Your task to perform on an android device: Go to sound settings Image 0: 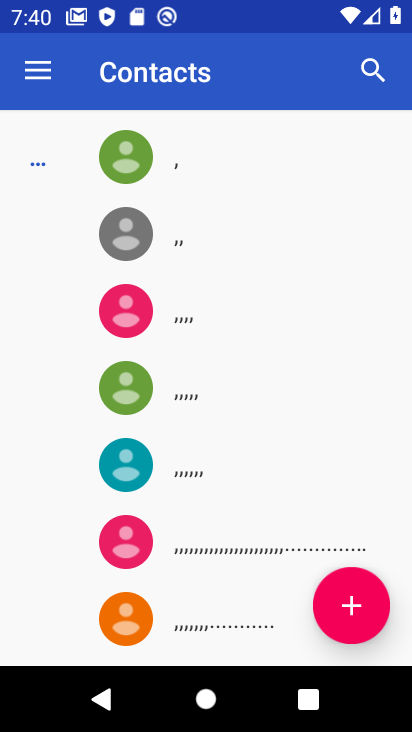
Step 0: press home button
Your task to perform on an android device: Go to sound settings Image 1: 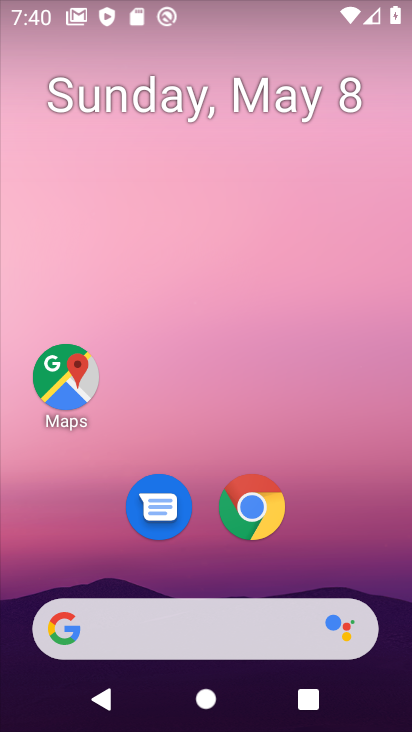
Step 1: drag from (158, 698) to (223, 60)
Your task to perform on an android device: Go to sound settings Image 2: 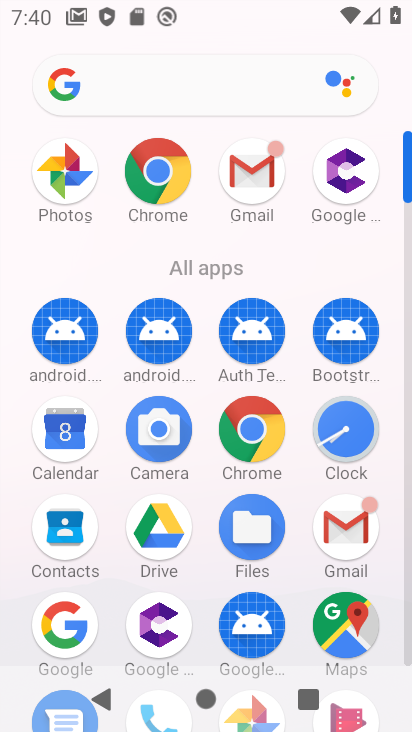
Step 2: drag from (298, 647) to (309, 124)
Your task to perform on an android device: Go to sound settings Image 3: 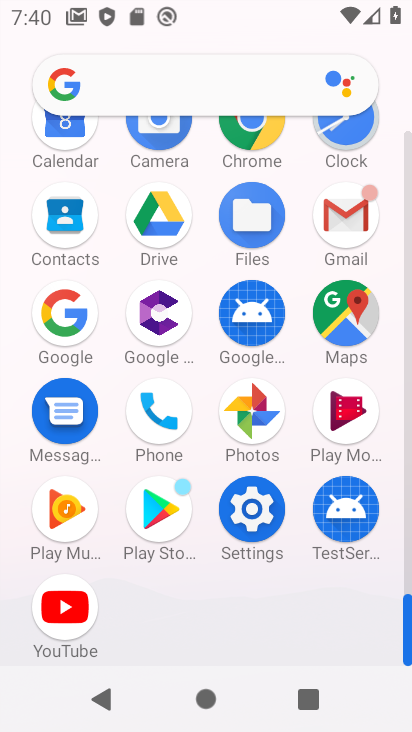
Step 3: click (273, 509)
Your task to perform on an android device: Go to sound settings Image 4: 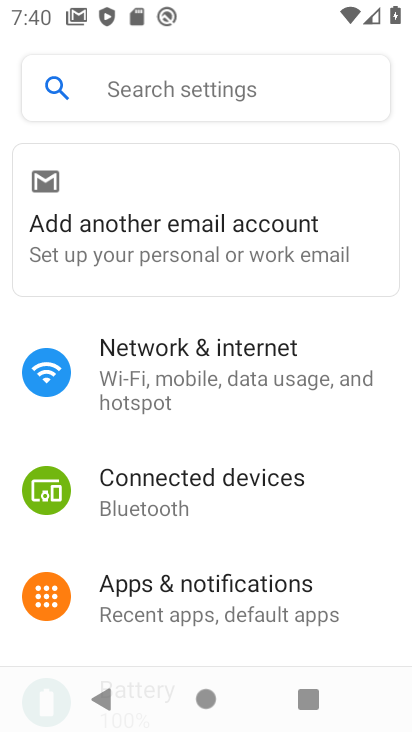
Step 4: drag from (290, 587) to (207, 101)
Your task to perform on an android device: Go to sound settings Image 5: 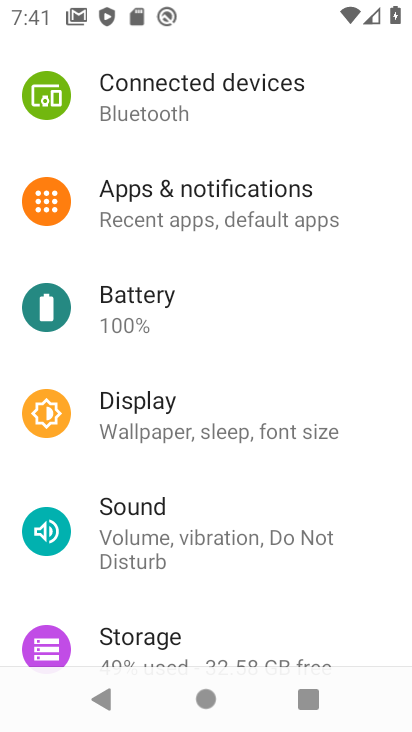
Step 5: click (217, 533)
Your task to perform on an android device: Go to sound settings Image 6: 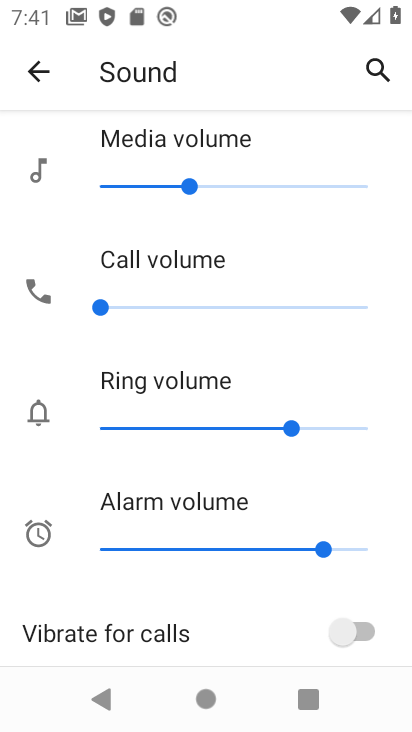
Step 6: task complete